Your task to perform on an android device: Open my contact list Image 0: 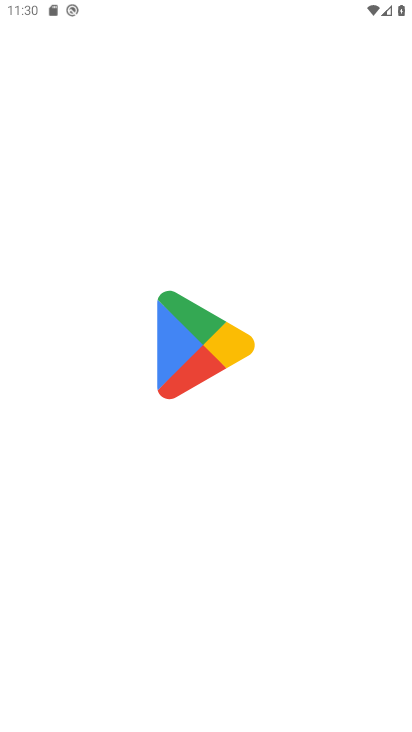
Step 0: press home button
Your task to perform on an android device: Open my contact list Image 1: 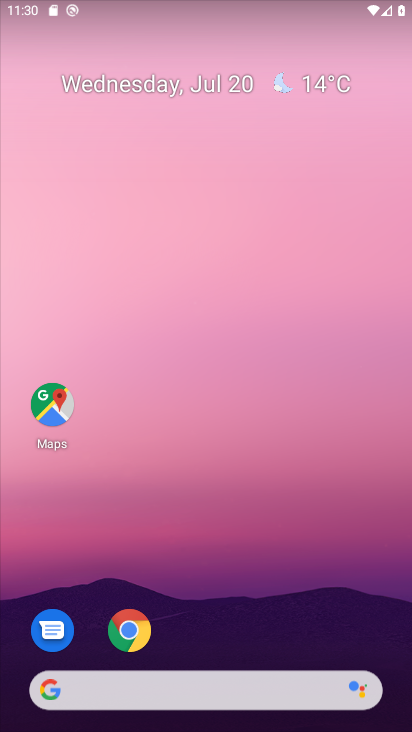
Step 1: drag from (215, 668) to (290, 39)
Your task to perform on an android device: Open my contact list Image 2: 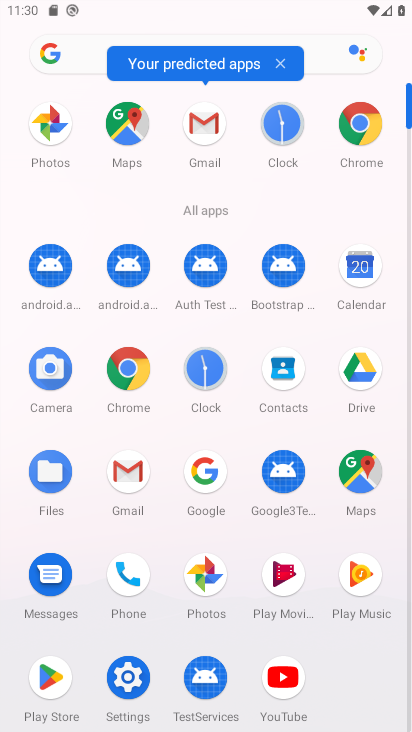
Step 2: click (126, 558)
Your task to perform on an android device: Open my contact list Image 3: 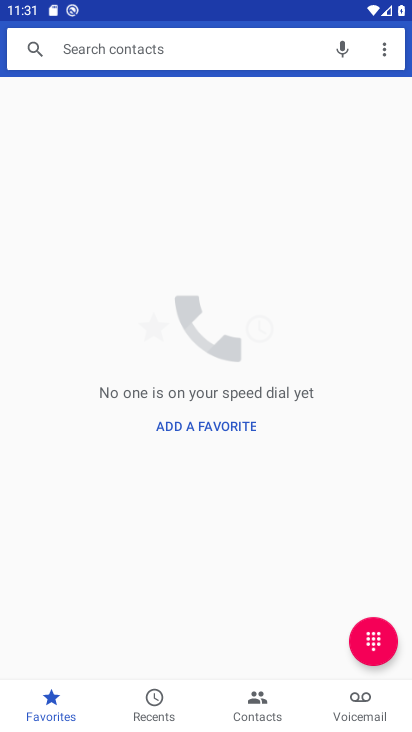
Step 3: click (255, 697)
Your task to perform on an android device: Open my contact list Image 4: 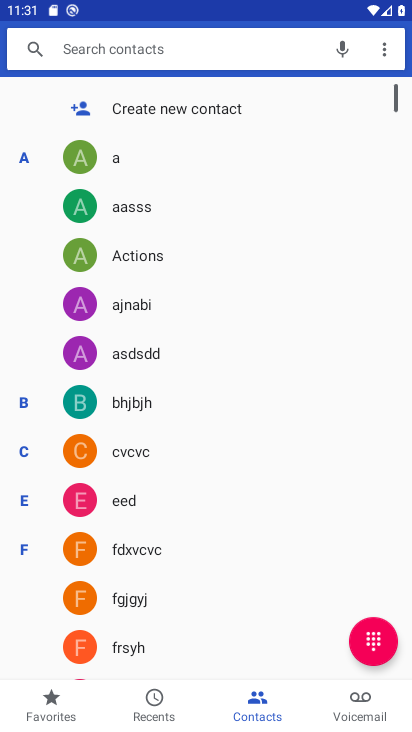
Step 4: task complete